Your task to perform on an android device: Open Youtube and go to the subscriptions tab Image 0: 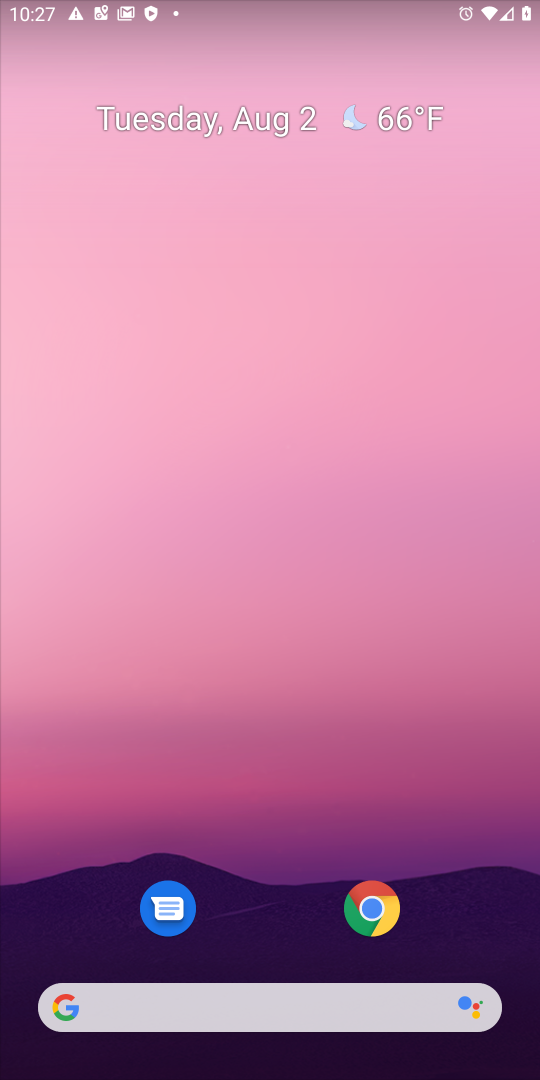
Step 0: drag from (216, 761) to (183, 91)
Your task to perform on an android device: Open Youtube and go to the subscriptions tab Image 1: 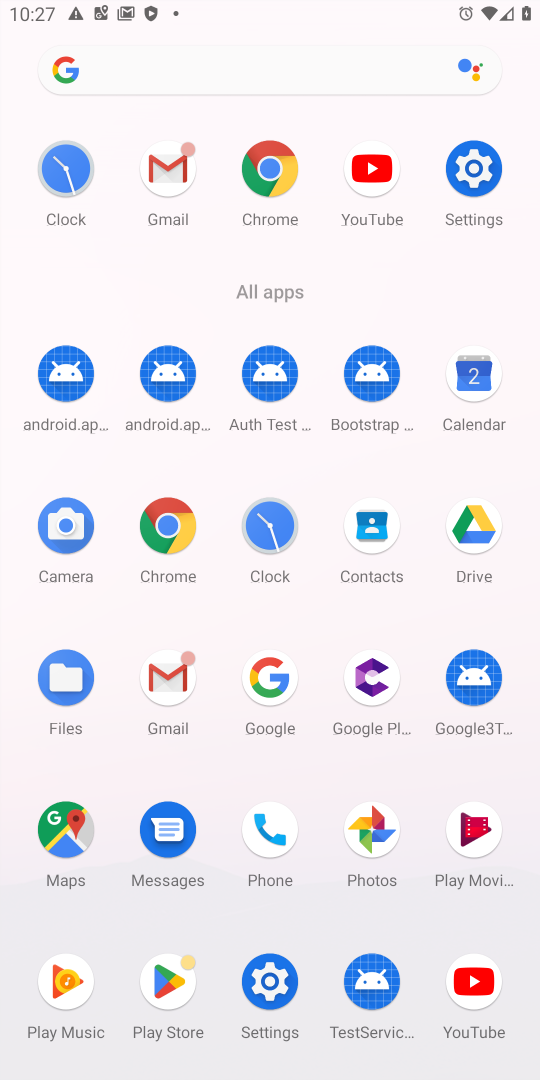
Step 1: click (482, 993)
Your task to perform on an android device: Open Youtube and go to the subscriptions tab Image 2: 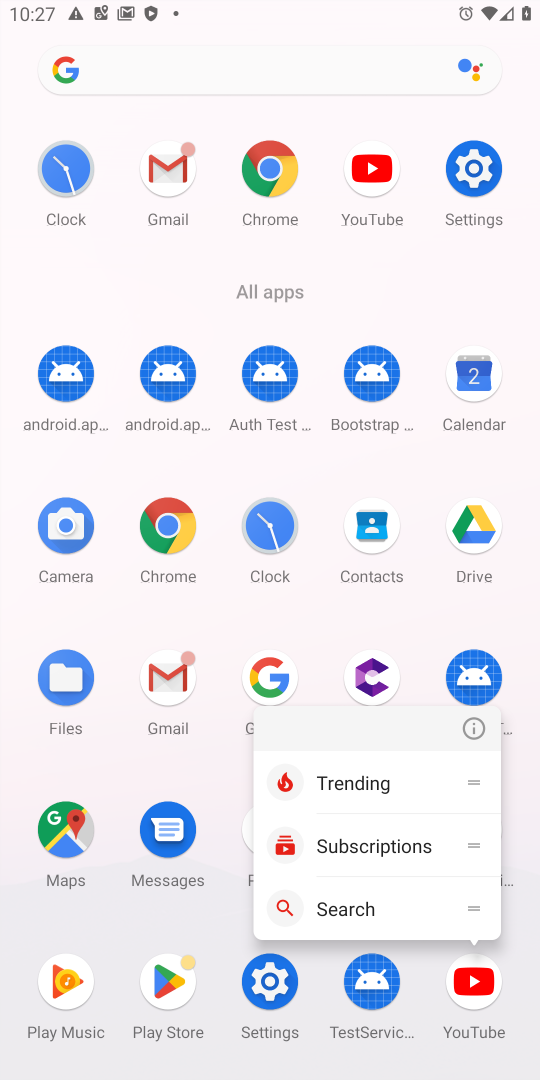
Step 2: click (482, 971)
Your task to perform on an android device: Open Youtube and go to the subscriptions tab Image 3: 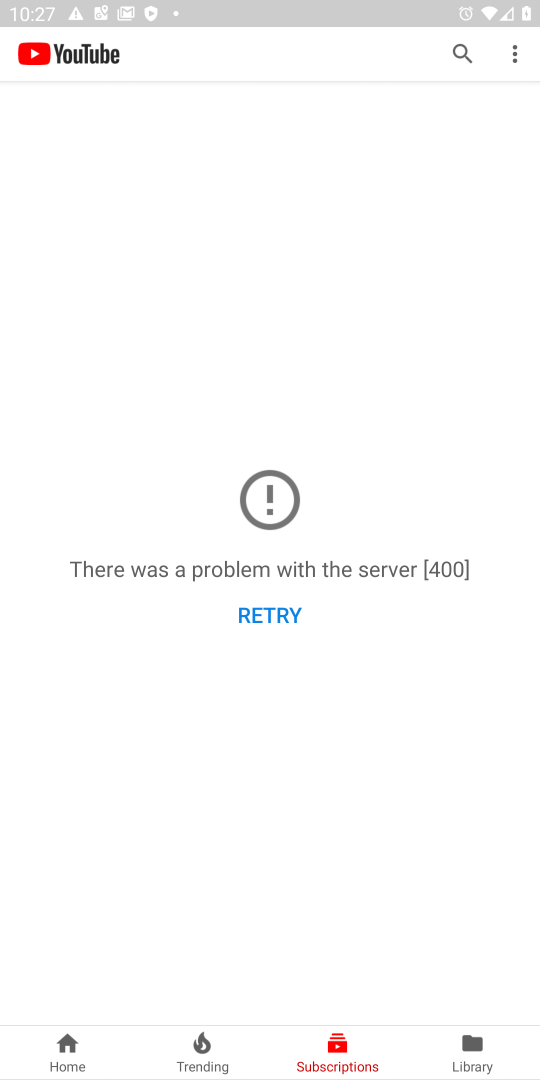
Step 3: task complete